Your task to perform on an android device: check android version Image 0: 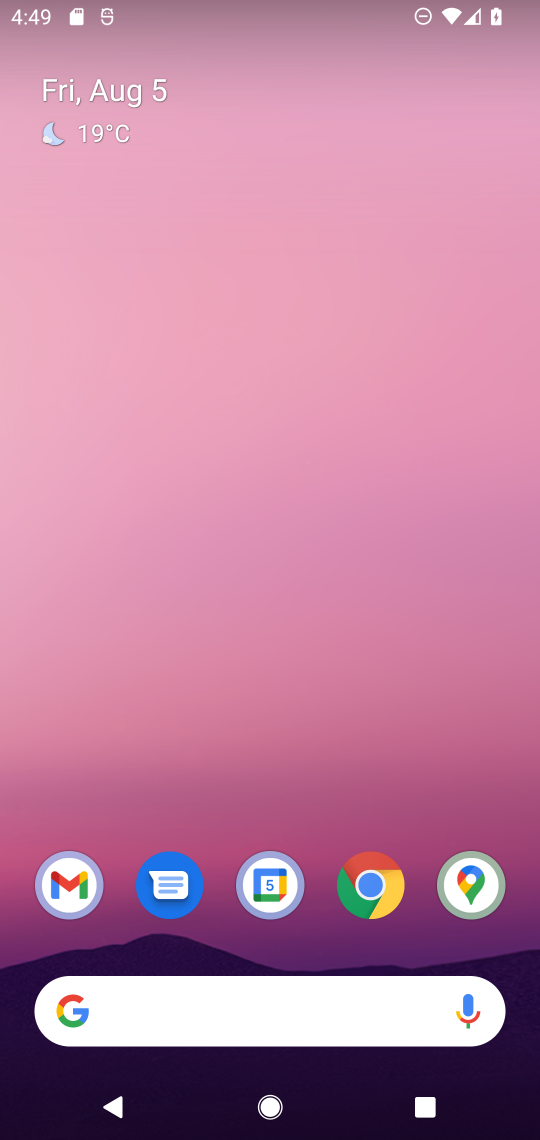
Step 0: drag from (320, 938) to (304, 16)
Your task to perform on an android device: check android version Image 1: 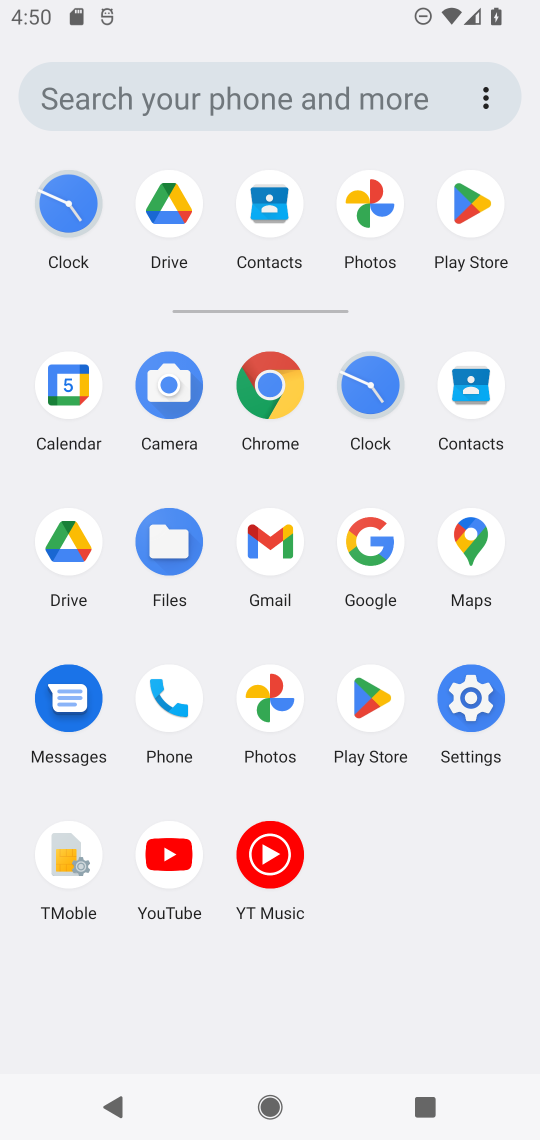
Step 1: click (474, 695)
Your task to perform on an android device: check android version Image 2: 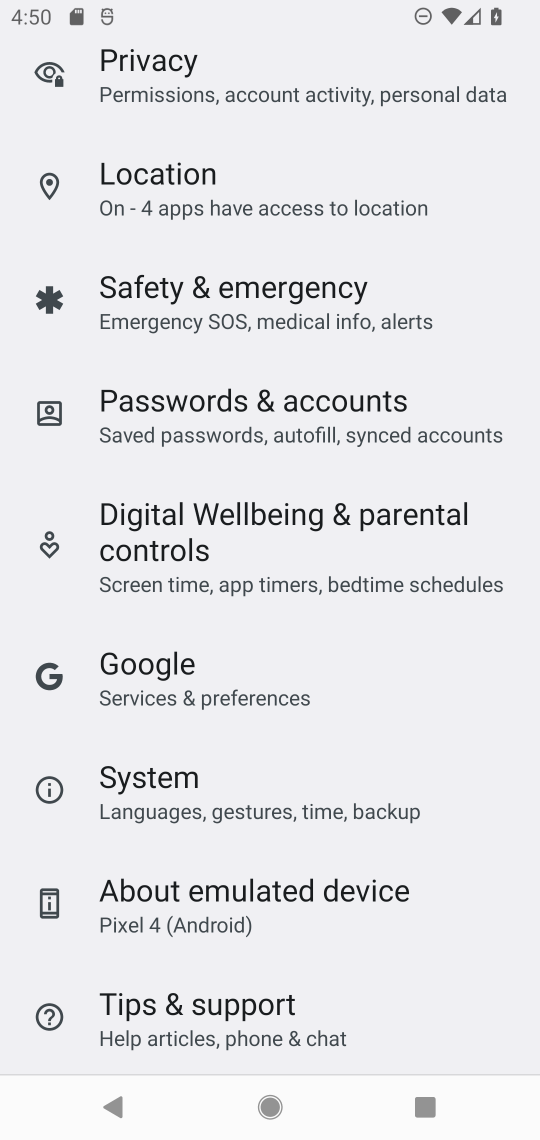
Step 2: drag from (232, 951) to (240, 505)
Your task to perform on an android device: check android version Image 3: 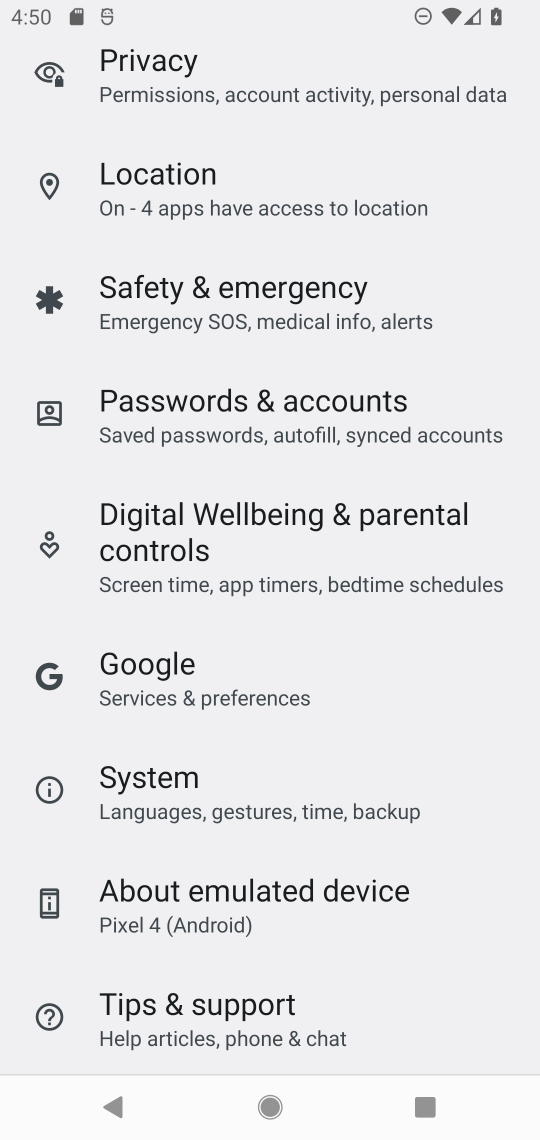
Step 3: click (205, 906)
Your task to perform on an android device: check android version Image 4: 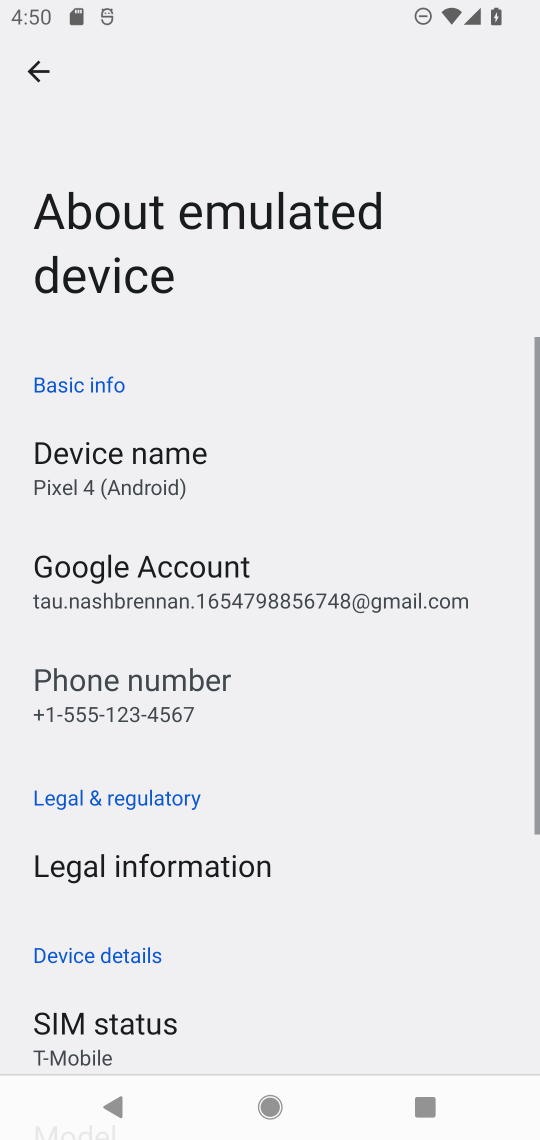
Step 4: drag from (282, 998) to (284, 382)
Your task to perform on an android device: check android version Image 5: 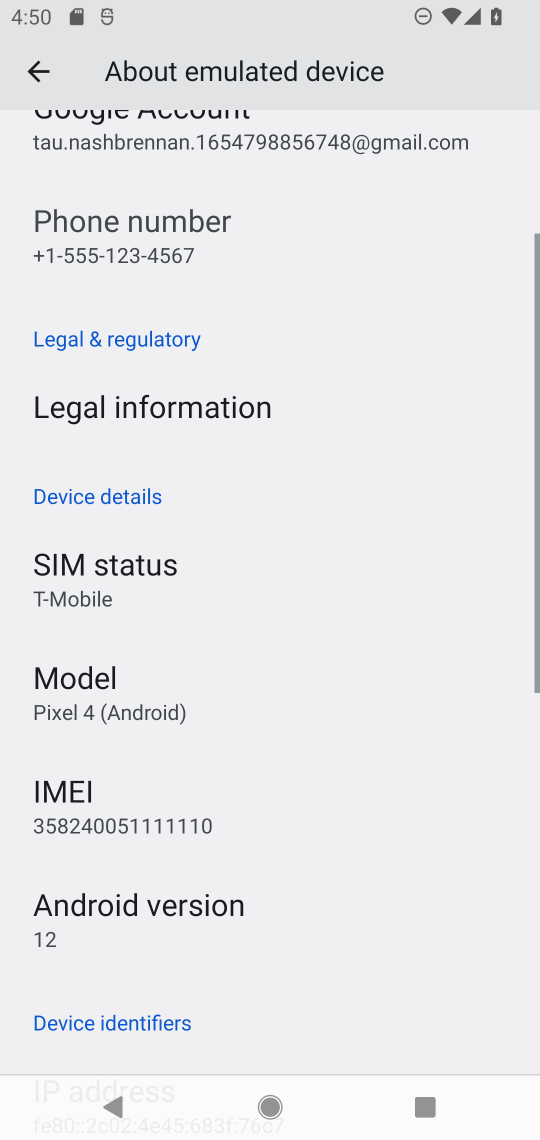
Step 5: click (200, 903)
Your task to perform on an android device: check android version Image 6: 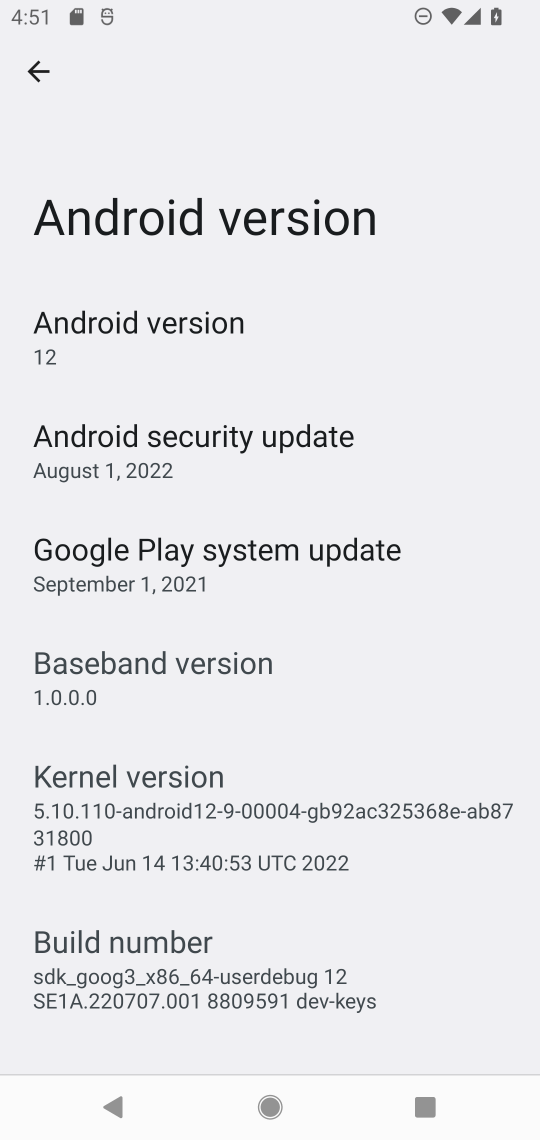
Step 6: task complete